Your task to perform on an android device: Go to eBay Image 0: 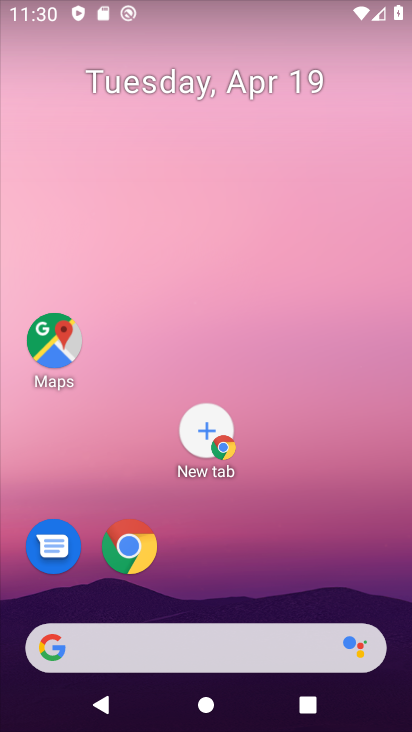
Step 0: click (127, 549)
Your task to perform on an android device: Go to eBay Image 1: 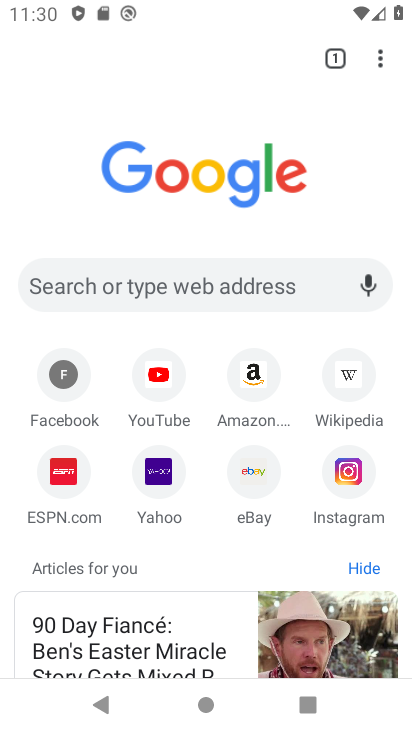
Step 1: click (263, 462)
Your task to perform on an android device: Go to eBay Image 2: 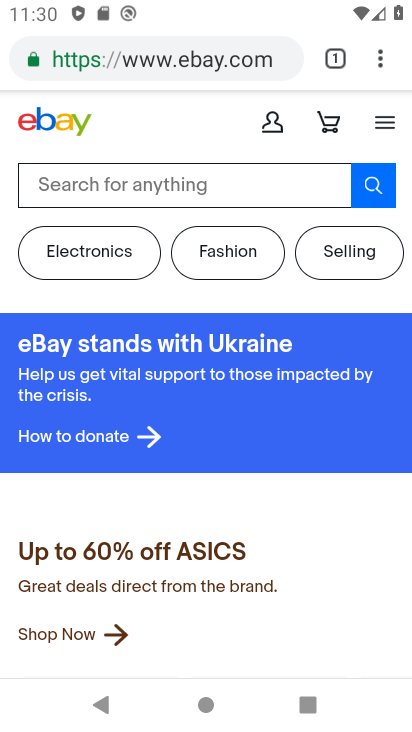
Step 2: task complete